Your task to perform on an android device: uninstall "Google Play Games" Image 0: 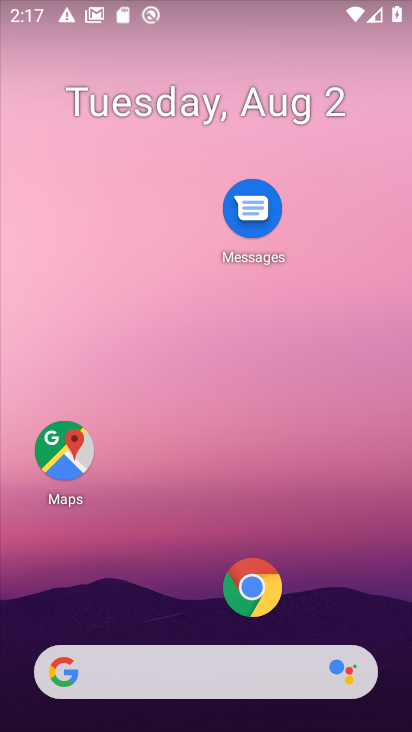
Step 0: drag from (176, 599) to (193, 174)
Your task to perform on an android device: uninstall "Google Play Games" Image 1: 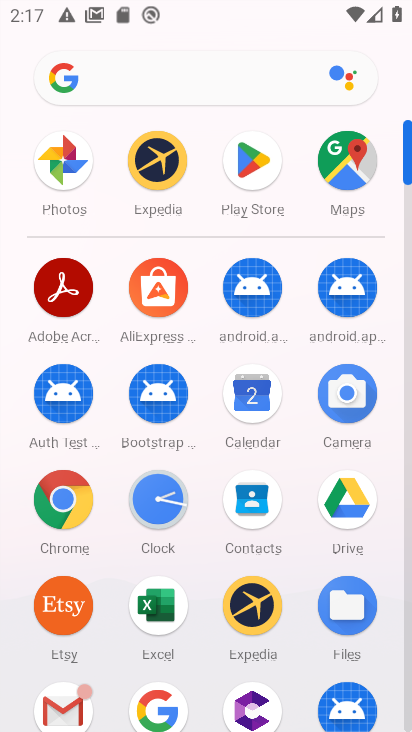
Step 1: click (257, 168)
Your task to perform on an android device: uninstall "Google Play Games" Image 2: 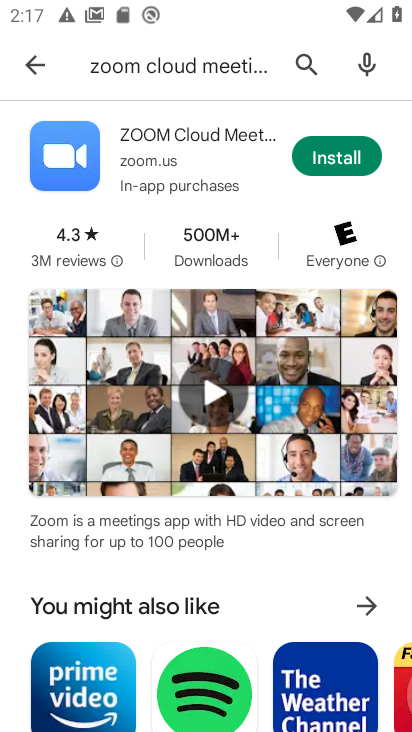
Step 2: click (303, 62)
Your task to perform on an android device: uninstall "Google Play Games" Image 3: 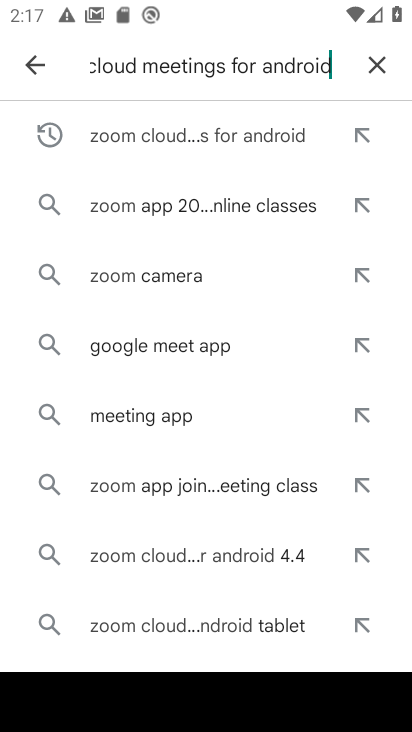
Step 3: click (369, 65)
Your task to perform on an android device: uninstall "Google Play Games" Image 4: 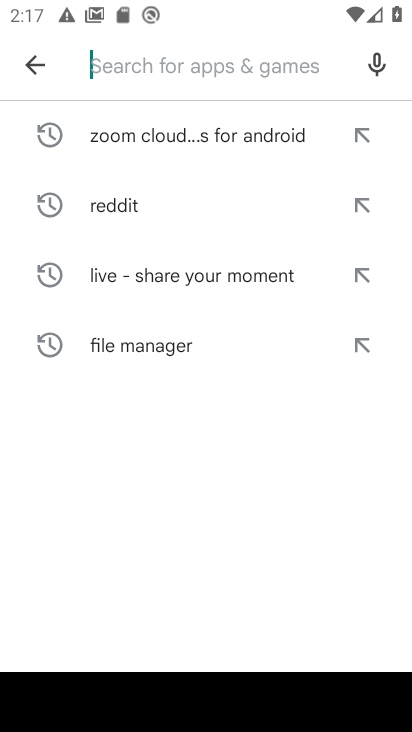
Step 4: type "Google Play Games"
Your task to perform on an android device: uninstall "Google Play Games" Image 5: 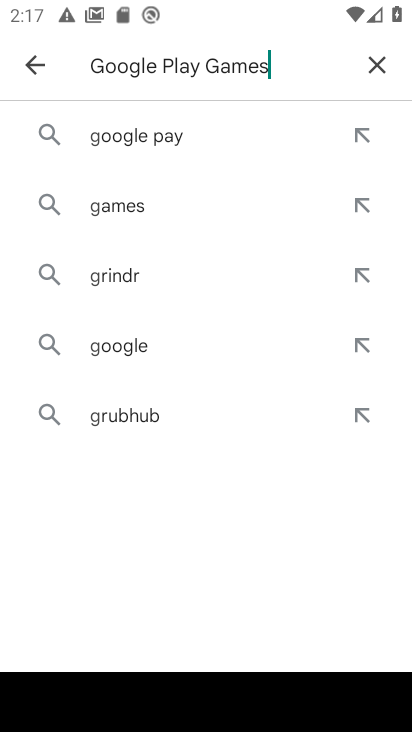
Step 5: type ""
Your task to perform on an android device: uninstall "Google Play Games" Image 6: 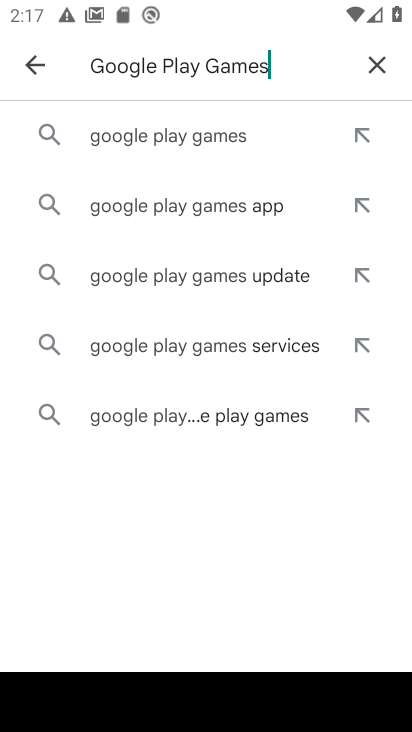
Step 6: click (188, 146)
Your task to perform on an android device: uninstall "Google Play Games" Image 7: 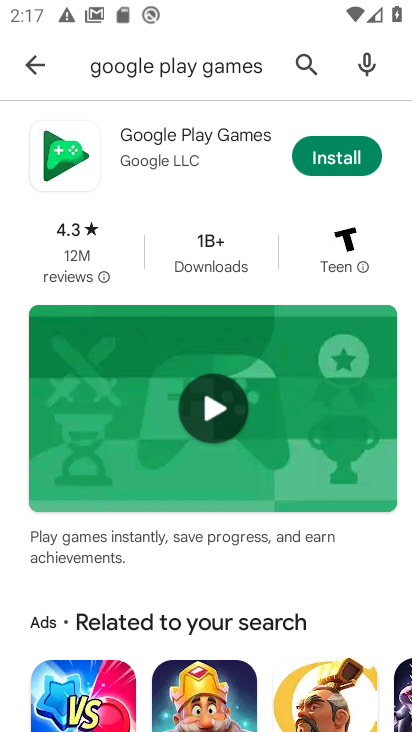
Step 7: task complete